Your task to perform on an android device: Open calendar and show me the third week of next month Image 0: 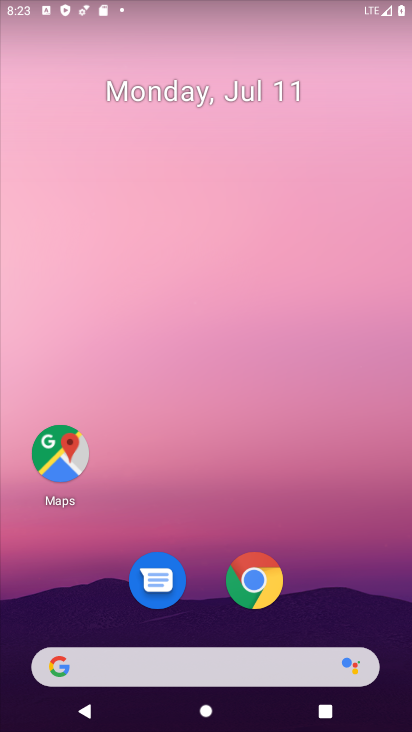
Step 0: drag from (246, 502) to (214, 0)
Your task to perform on an android device: Open calendar and show me the third week of next month Image 1: 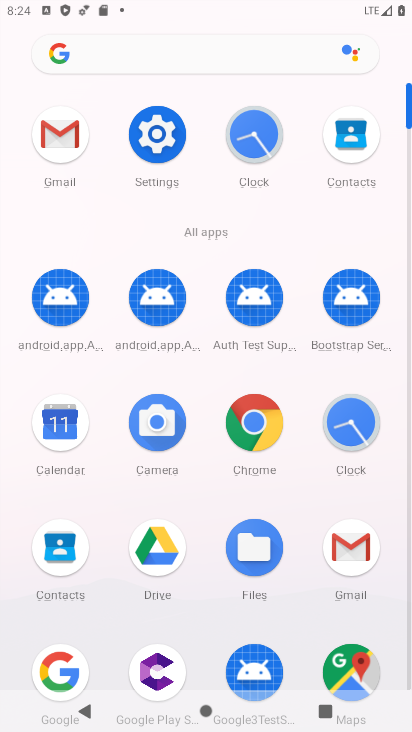
Step 1: click (66, 432)
Your task to perform on an android device: Open calendar and show me the third week of next month Image 2: 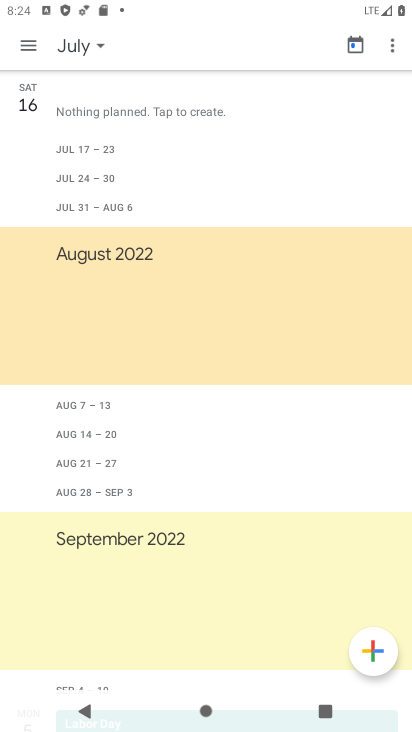
Step 2: click (28, 42)
Your task to perform on an android device: Open calendar and show me the third week of next month Image 3: 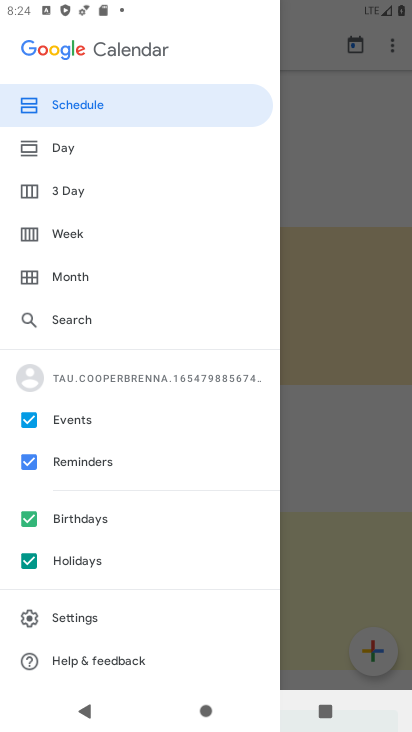
Step 3: click (71, 281)
Your task to perform on an android device: Open calendar and show me the third week of next month Image 4: 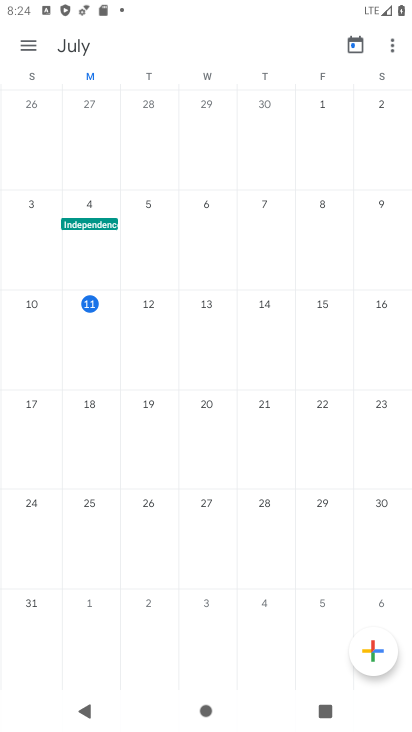
Step 4: drag from (327, 359) to (0, 276)
Your task to perform on an android device: Open calendar and show me the third week of next month Image 5: 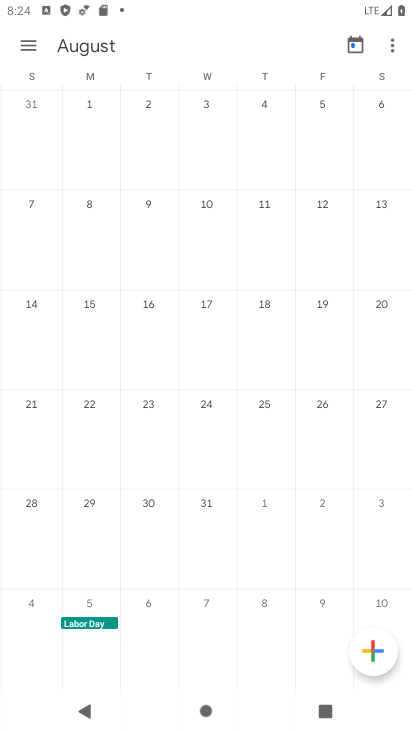
Step 5: click (36, 402)
Your task to perform on an android device: Open calendar and show me the third week of next month Image 6: 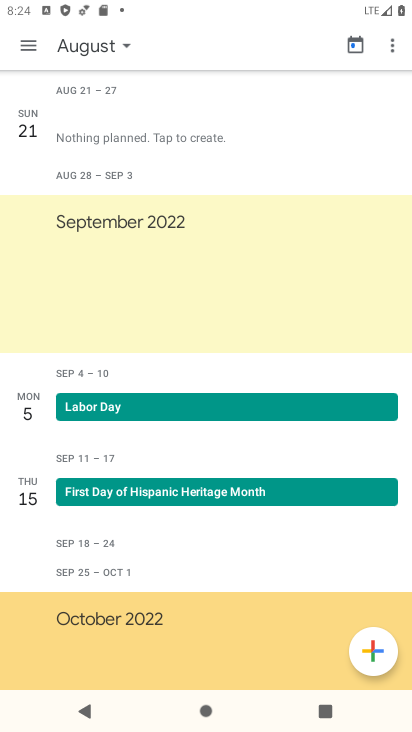
Step 6: click (24, 38)
Your task to perform on an android device: Open calendar and show me the third week of next month Image 7: 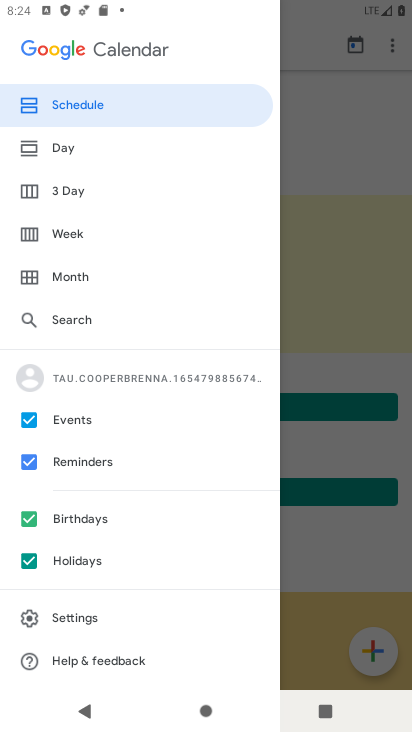
Step 7: click (73, 233)
Your task to perform on an android device: Open calendar and show me the third week of next month Image 8: 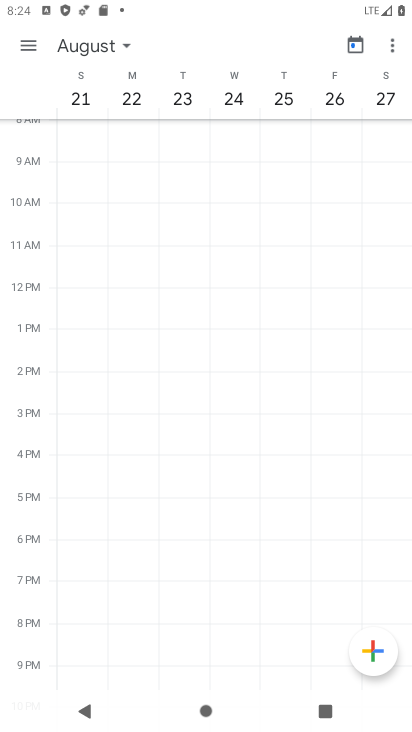
Step 8: task complete